Your task to perform on an android device: Open battery settings Image 0: 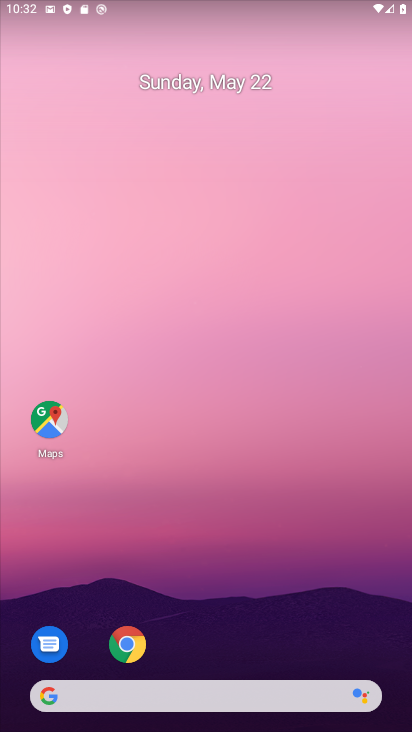
Step 0: drag from (325, 629) to (222, 63)
Your task to perform on an android device: Open battery settings Image 1: 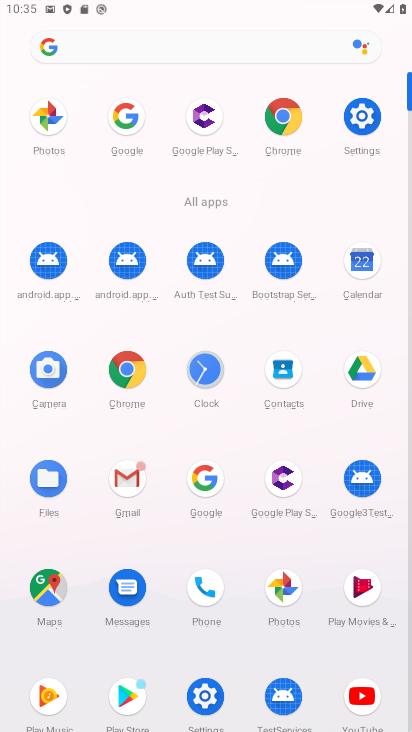
Step 1: click (214, 692)
Your task to perform on an android device: Open battery settings Image 2: 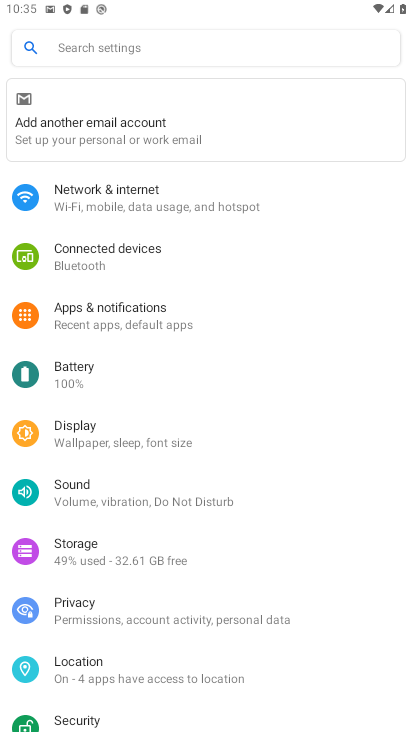
Step 2: click (109, 355)
Your task to perform on an android device: Open battery settings Image 3: 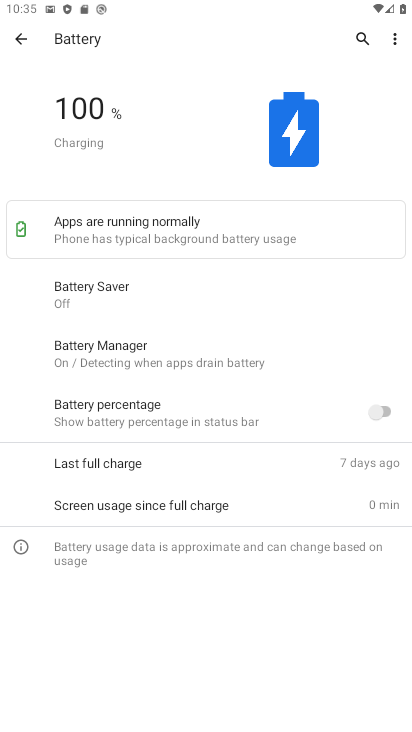
Step 3: task complete